Your task to perform on an android device: Open calendar and show me the fourth week of next month Image 0: 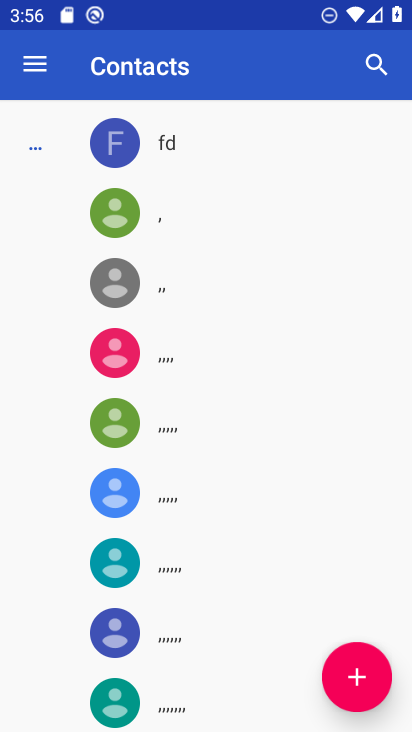
Step 0: press home button
Your task to perform on an android device: Open calendar and show me the fourth week of next month Image 1: 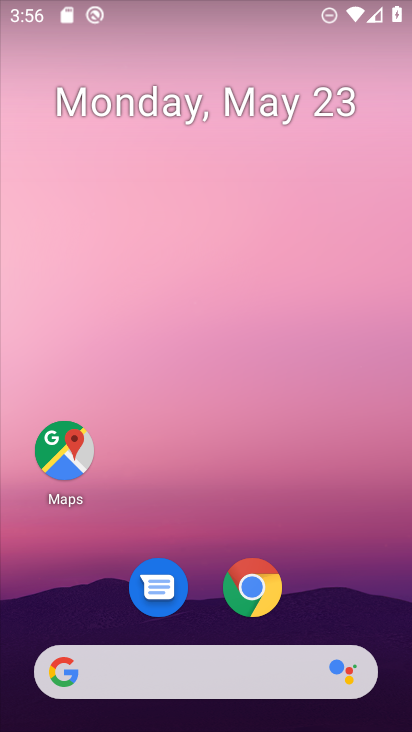
Step 1: drag from (213, 608) to (242, 280)
Your task to perform on an android device: Open calendar and show me the fourth week of next month Image 2: 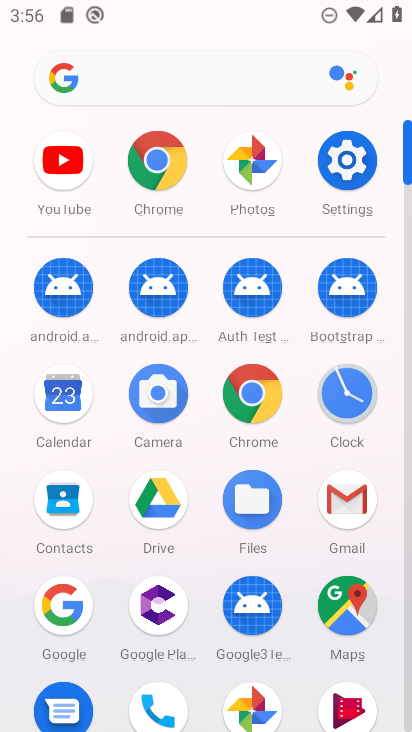
Step 2: click (68, 408)
Your task to perform on an android device: Open calendar and show me the fourth week of next month Image 3: 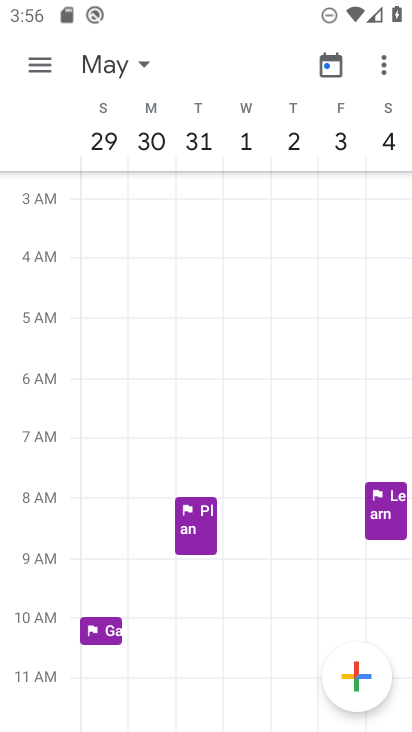
Step 3: task complete